Your task to perform on an android device: add a contact in the contacts app Image 0: 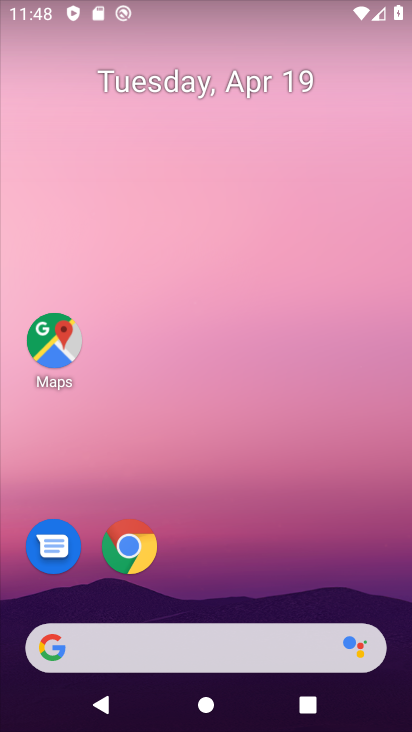
Step 0: drag from (264, 716) to (224, 257)
Your task to perform on an android device: add a contact in the contacts app Image 1: 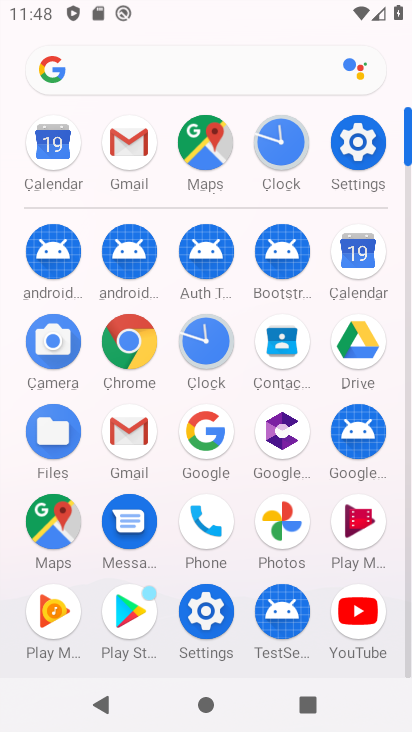
Step 1: click (213, 519)
Your task to perform on an android device: add a contact in the contacts app Image 2: 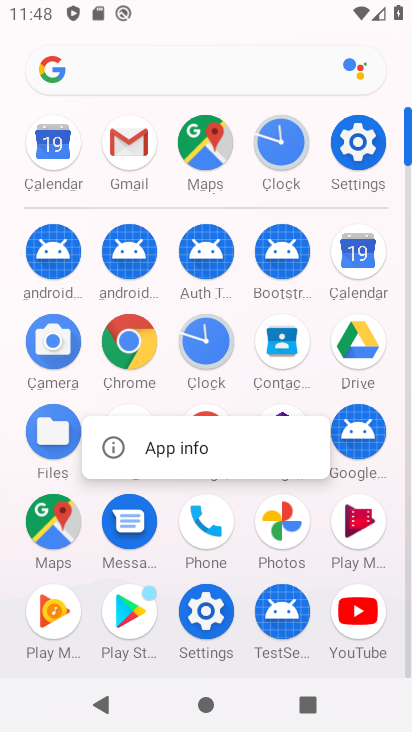
Step 2: click (270, 335)
Your task to perform on an android device: add a contact in the contacts app Image 3: 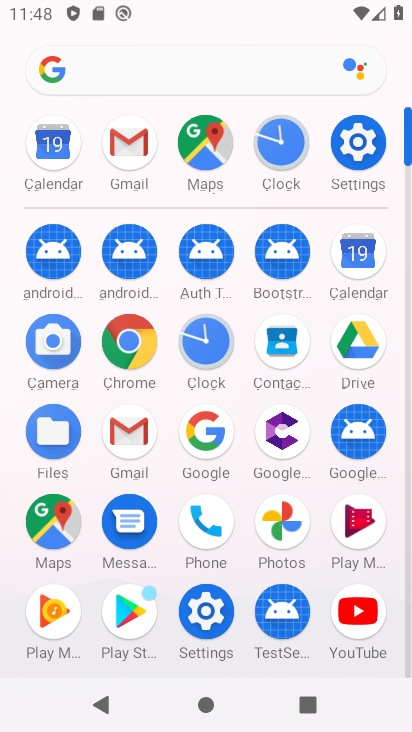
Step 3: click (270, 335)
Your task to perform on an android device: add a contact in the contacts app Image 4: 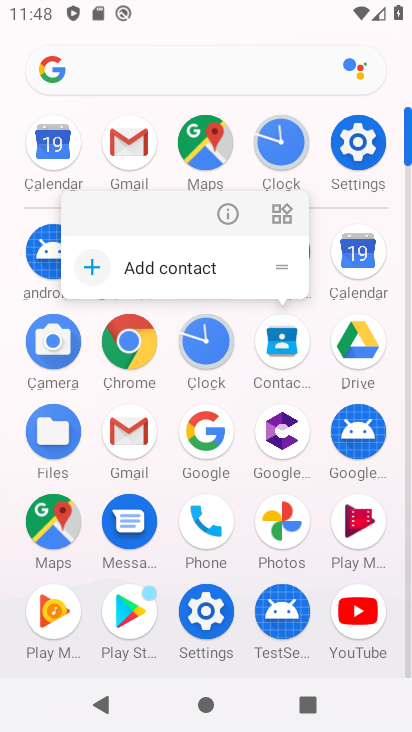
Step 4: click (270, 335)
Your task to perform on an android device: add a contact in the contacts app Image 5: 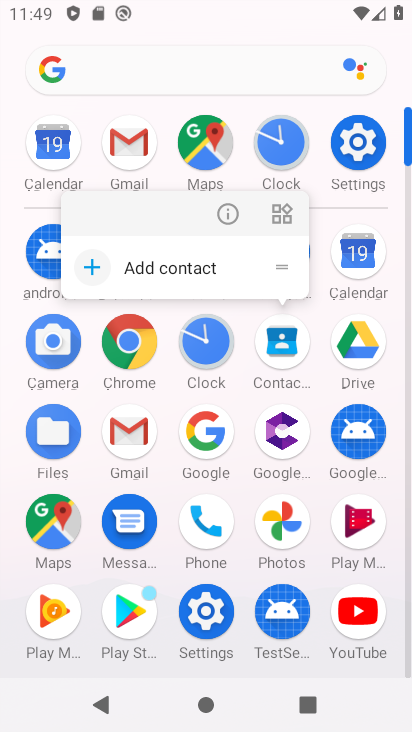
Step 5: click (187, 267)
Your task to perform on an android device: add a contact in the contacts app Image 6: 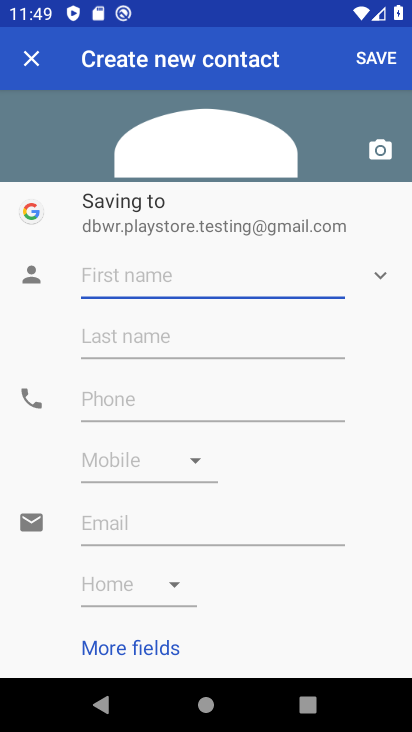
Step 6: type "hjhj"
Your task to perform on an android device: add a contact in the contacts app Image 7: 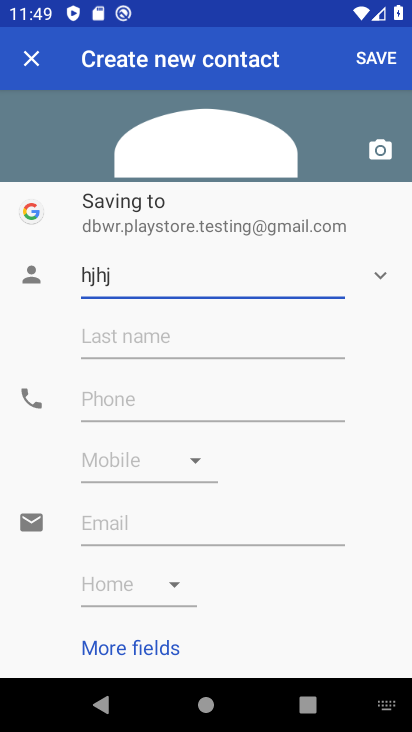
Step 7: click (165, 394)
Your task to perform on an android device: add a contact in the contacts app Image 8: 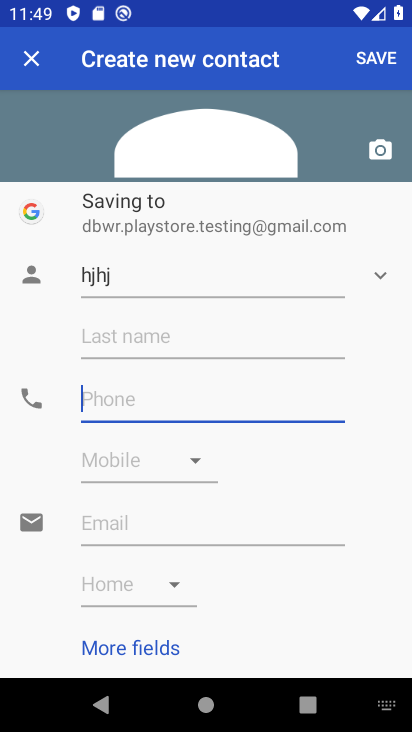
Step 8: type "88"
Your task to perform on an android device: add a contact in the contacts app Image 9: 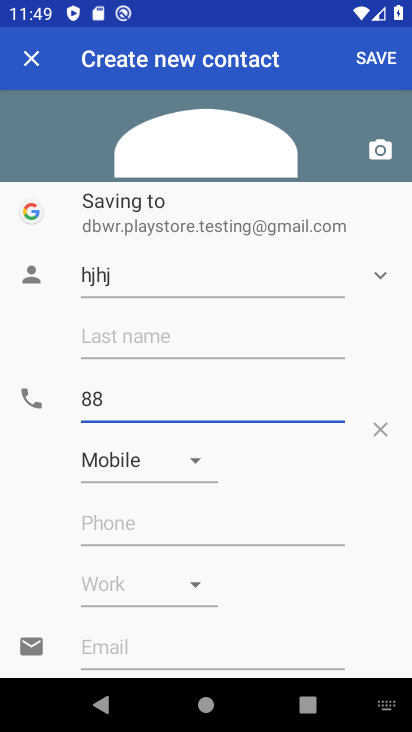
Step 9: click (382, 40)
Your task to perform on an android device: add a contact in the contacts app Image 10: 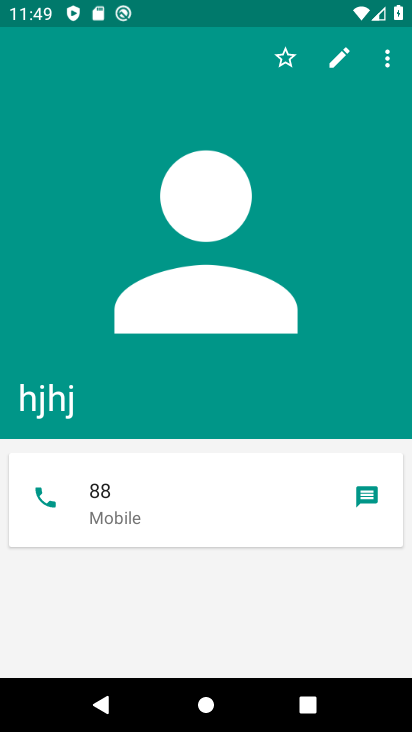
Step 10: task complete